Your task to perform on an android device: toggle priority inbox in the gmail app Image 0: 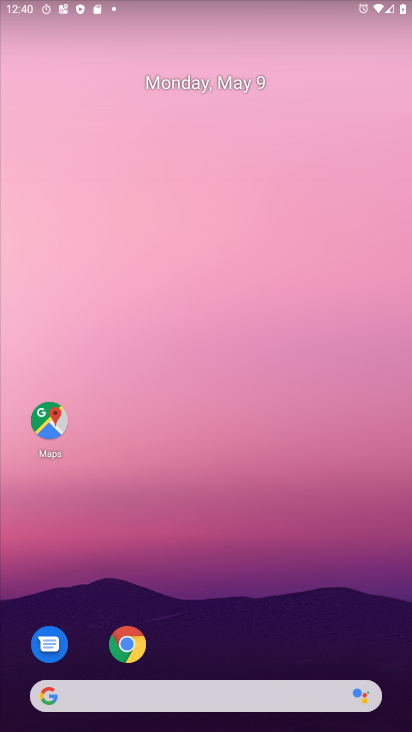
Step 0: press home button
Your task to perform on an android device: toggle priority inbox in the gmail app Image 1: 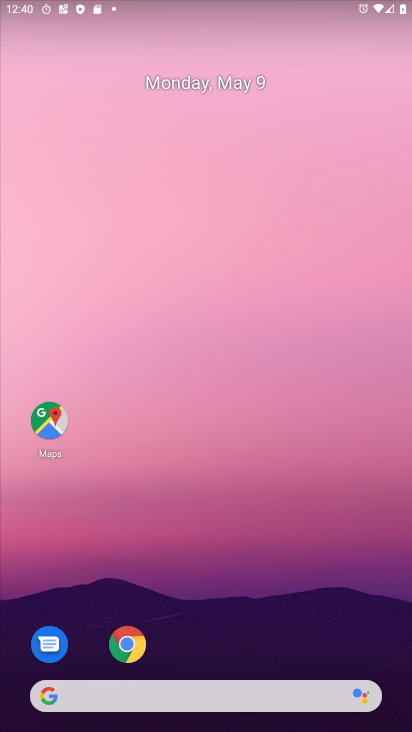
Step 1: click (104, 101)
Your task to perform on an android device: toggle priority inbox in the gmail app Image 2: 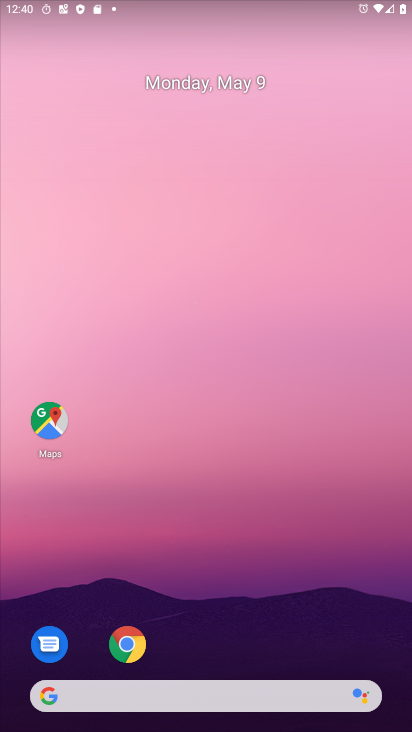
Step 2: click (158, 113)
Your task to perform on an android device: toggle priority inbox in the gmail app Image 3: 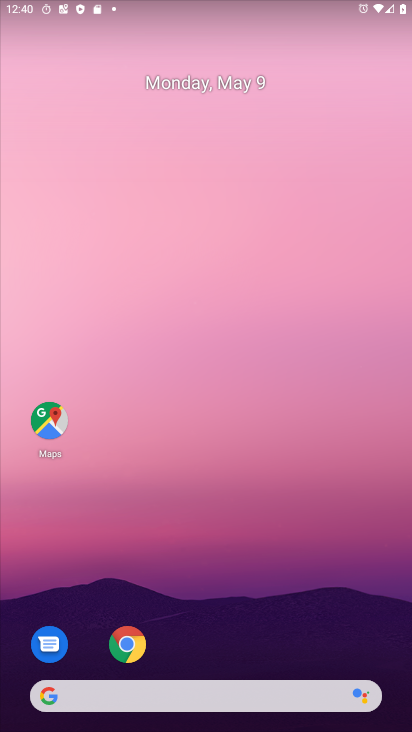
Step 3: drag from (257, 455) to (96, 33)
Your task to perform on an android device: toggle priority inbox in the gmail app Image 4: 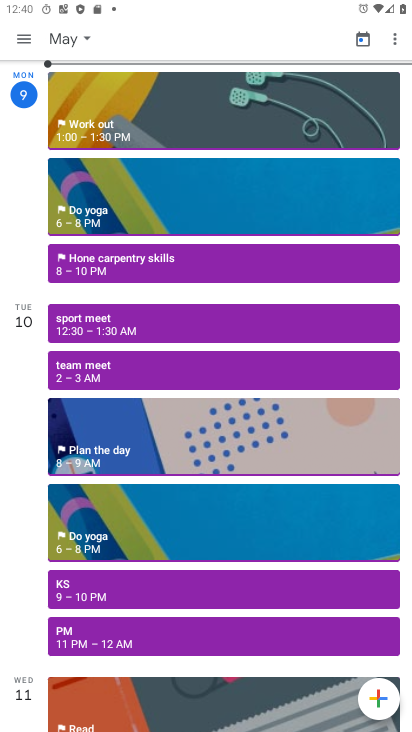
Step 4: drag from (238, 533) to (127, 96)
Your task to perform on an android device: toggle priority inbox in the gmail app Image 5: 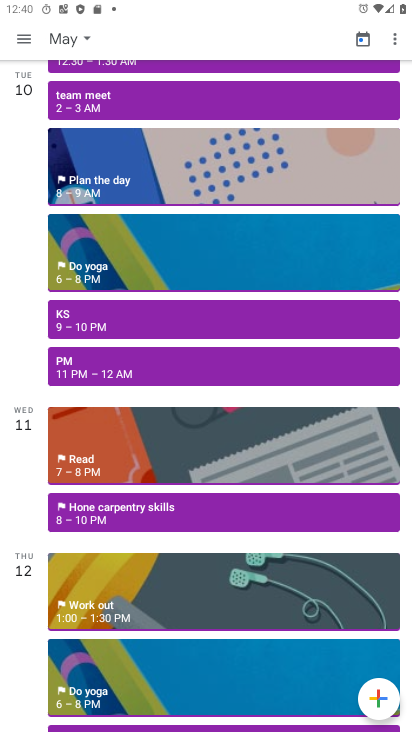
Step 5: press home button
Your task to perform on an android device: toggle priority inbox in the gmail app Image 6: 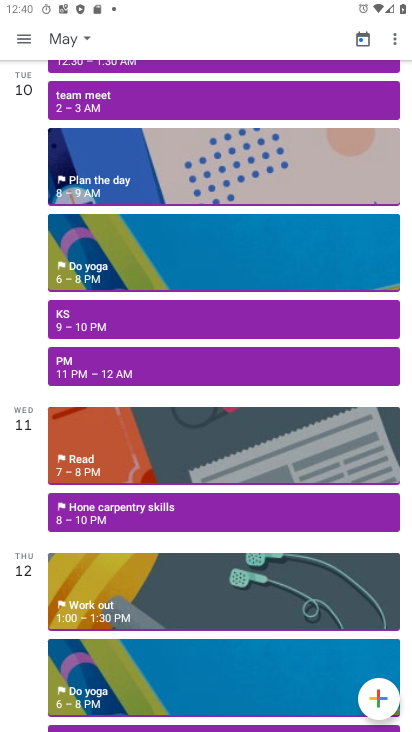
Step 6: press home button
Your task to perform on an android device: toggle priority inbox in the gmail app Image 7: 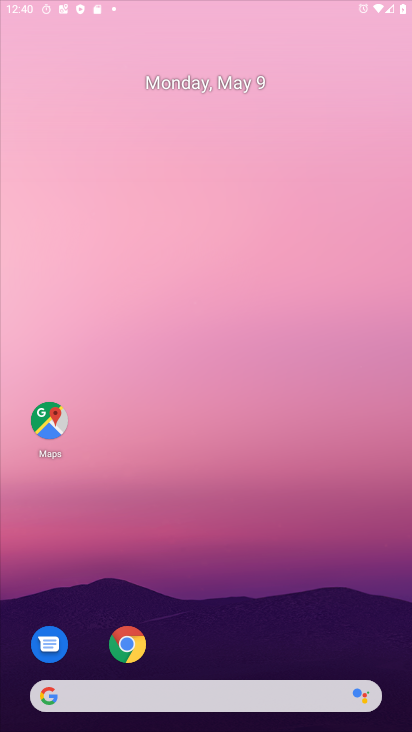
Step 7: press home button
Your task to perform on an android device: toggle priority inbox in the gmail app Image 8: 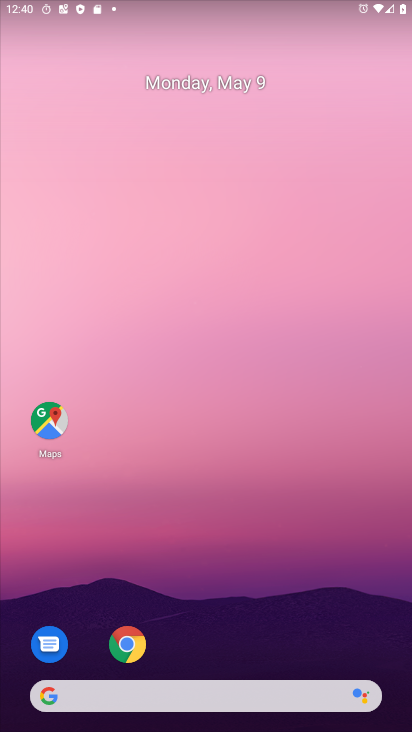
Step 8: drag from (301, 601) to (91, 73)
Your task to perform on an android device: toggle priority inbox in the gmail app Image 9: 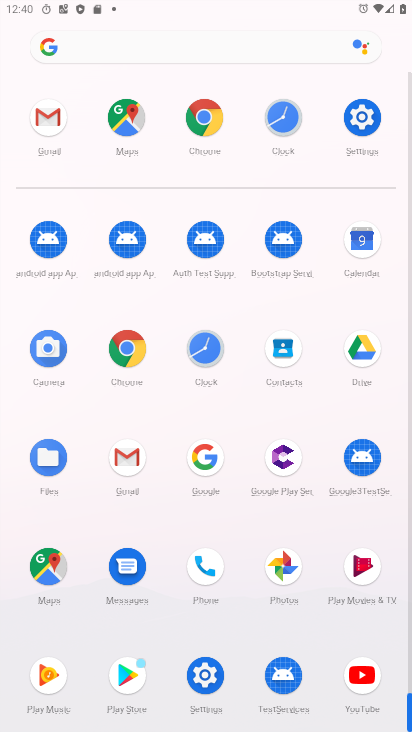
Step 9: drag from (224, 498) to (75, 15)
Your task to perform on an android device: toggle priority inbox in the gmail app Image 10: 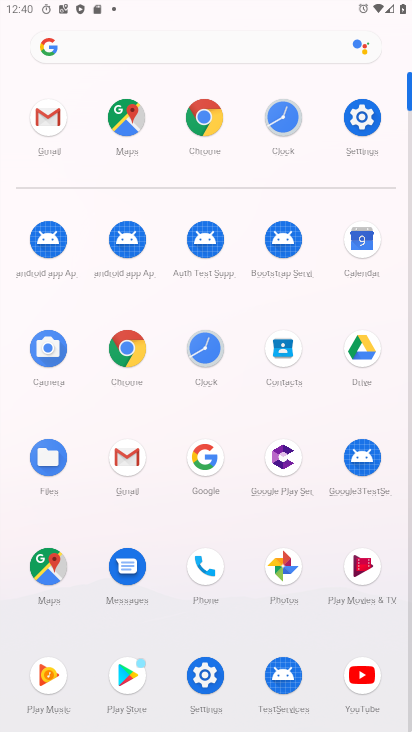
Step 10: click (123, 453)
Your task to perform on an android device: toggle priority inbox in the gmail app Image 11: 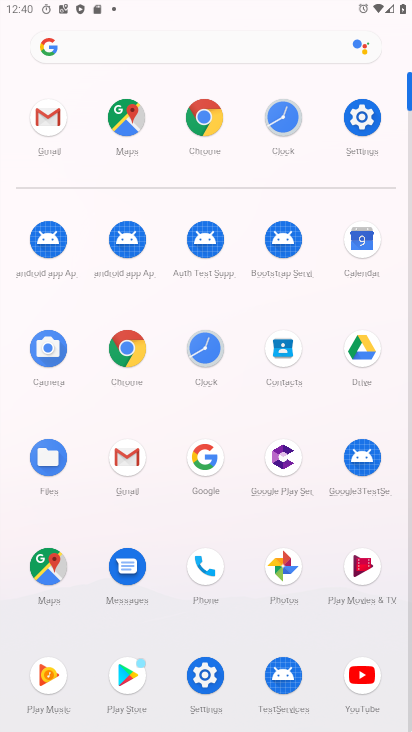
Step 11: click (123, 453)
Your task to perform on an android device: toggle priority inbox in the gmail app Image 12: 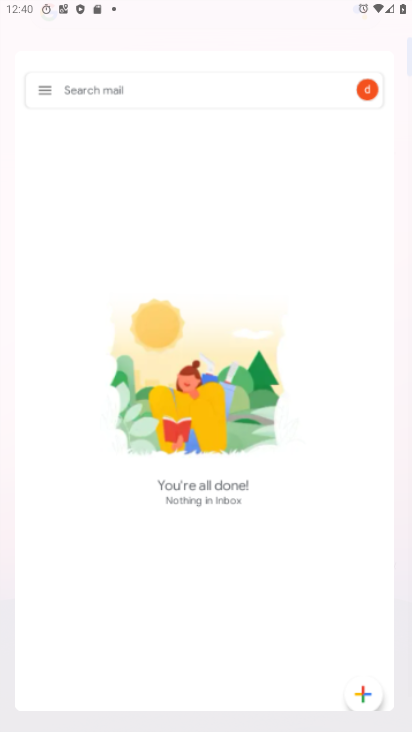
Step 12: click (122, 454)
Your task to perform on an android device: toggle priority inbox in the gmail app Image 13: 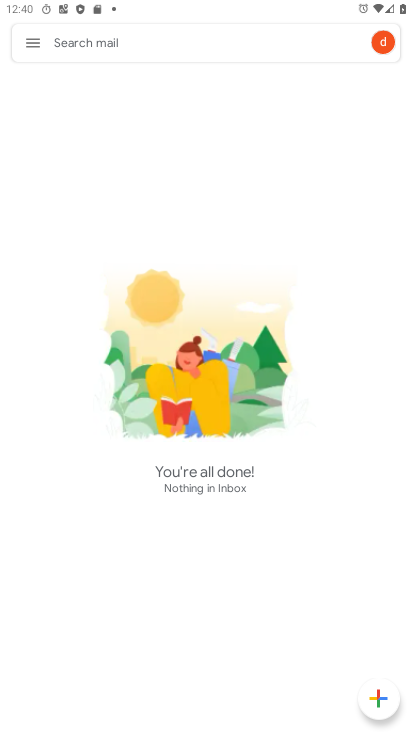
Step 13: click (32, 39)
Your task to perform on an android device: toggle priority inbox in the gmail app Image 14: 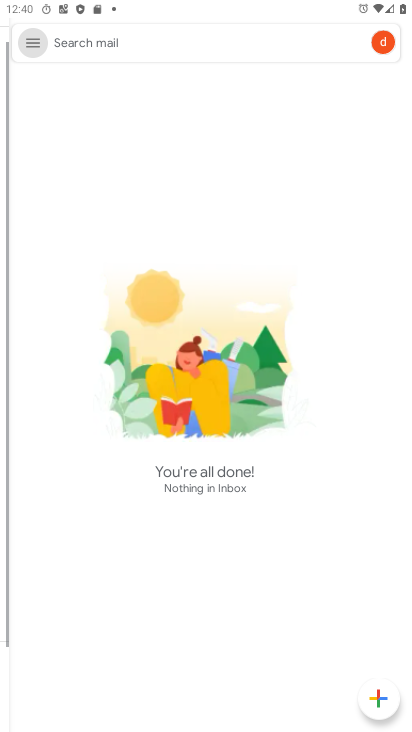
Step 14: click (32, 39)
Your task to perform on an android device: toggle priority inbox in the gmail app Image 15: 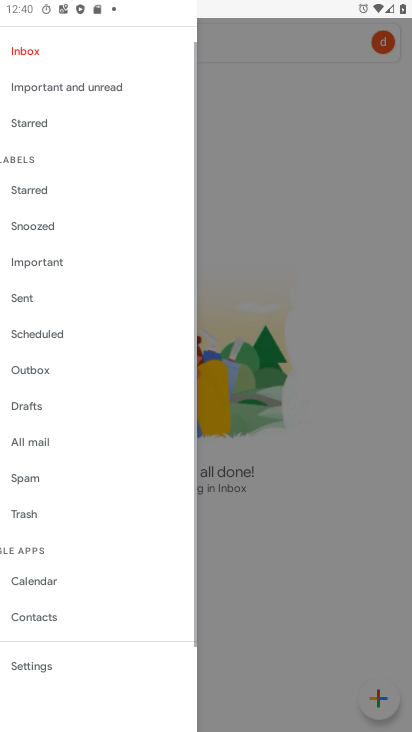
Step 15: click (32, 39)
Your task to perform on an android device: toggle priority inbox in the gmail app Image 16: 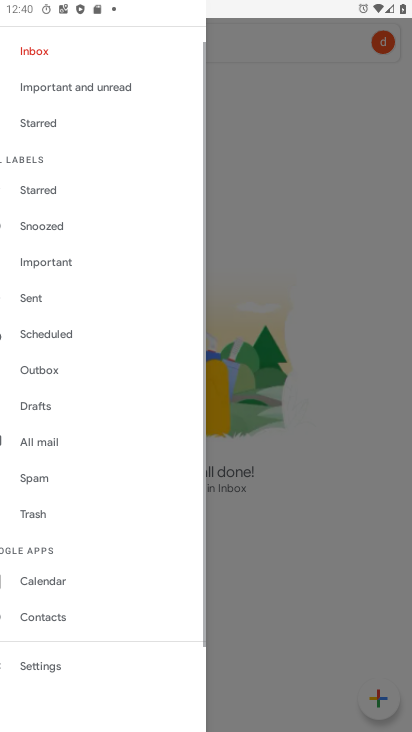
Step 16: click (32, 39)
Your task to perform on an android device: toggle priority inbox in the gmail app Image 17: 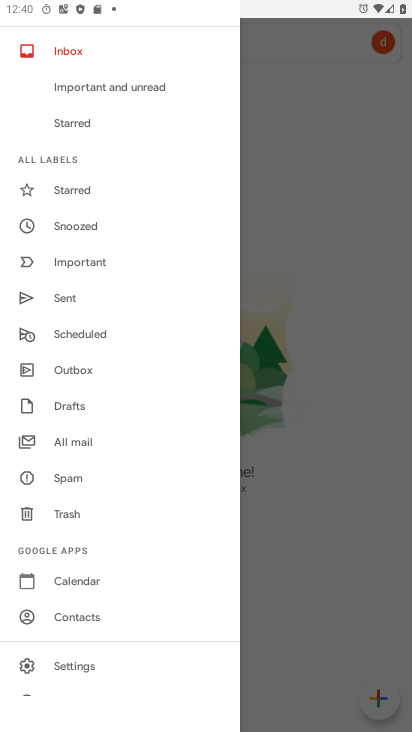
Step 17: click (61, 663)
Your task to perform on an android device: toggle priority inbox in the gmail app Image 18: 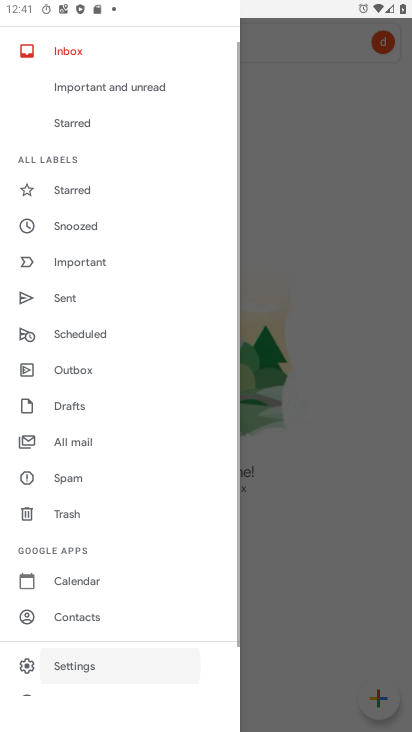
Step 18: click (61, 663)
Your task to perform on an android device: toggle priority inbox in the gmail app Image 19: 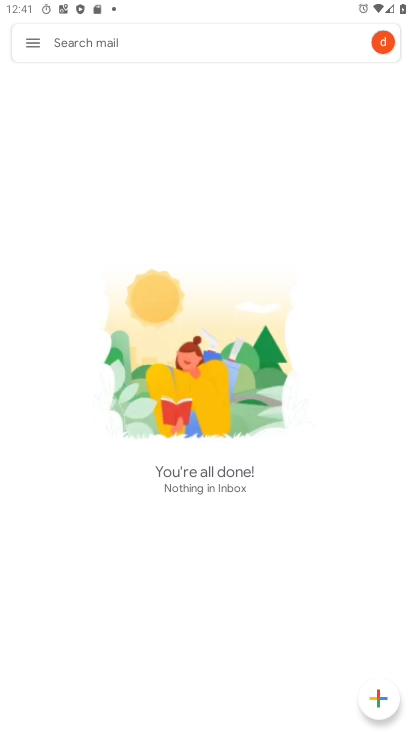
Step 19: click (61, 663)
Your task to perform on an android device: toggle priority inbox in the gmail app Image 20: 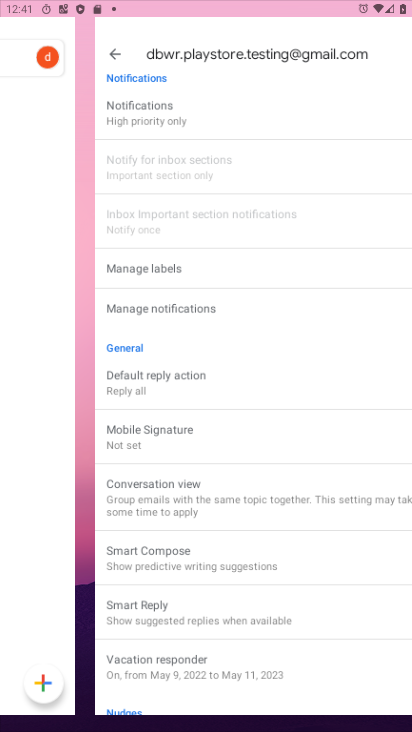
Step 20: click (63, 662)
Your task to perform on an android device: toggle priority inbox in the gmail app Image 21: 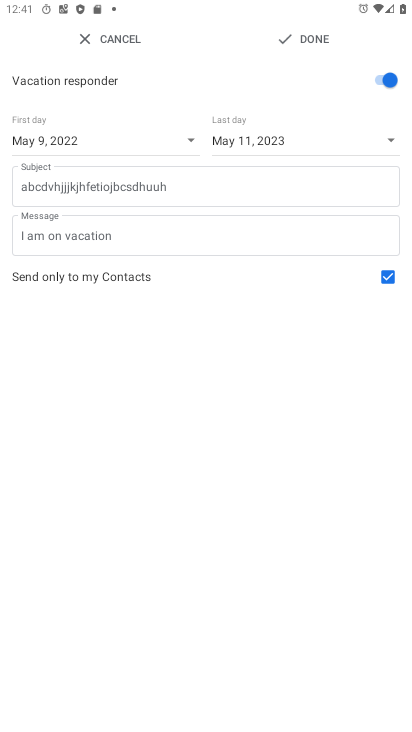
Step 21: press back button
Your task to perform on an android device: toggle priority inbox in the gmail app Image 22: 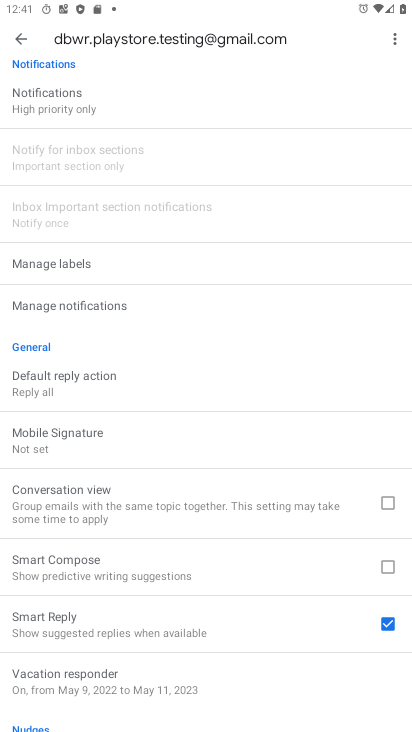
Step 22: drag from (97, 243) to (168, 554)
Your task to perform on an android device: toggle priority inbox in the gmail app Image 23: 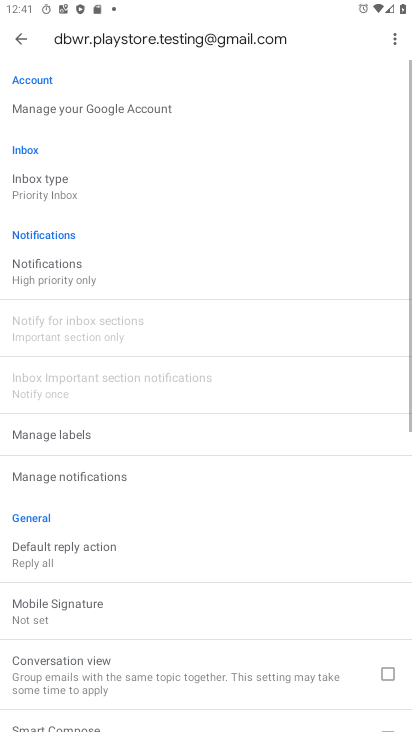
Step 23: drag from (87, 184) to (151, 422)
Your task to perform on an android device: toggle priority inbox in the gmail app Image 24: 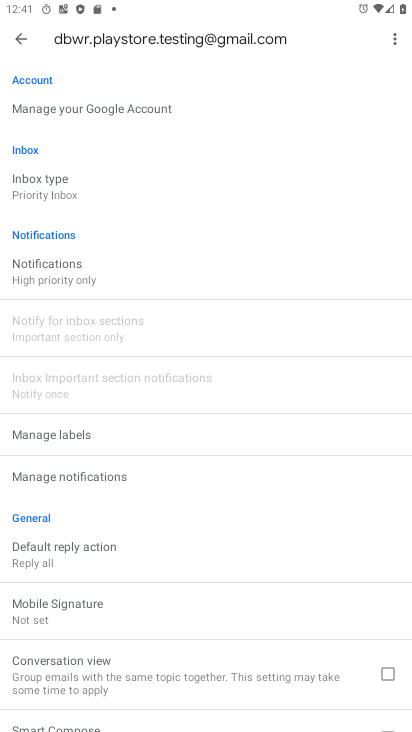
Step 24: drag from (54, 77) to (114, 439)
Your task to perform on an android device: toggle priority inbox in the gmail app Image 25: 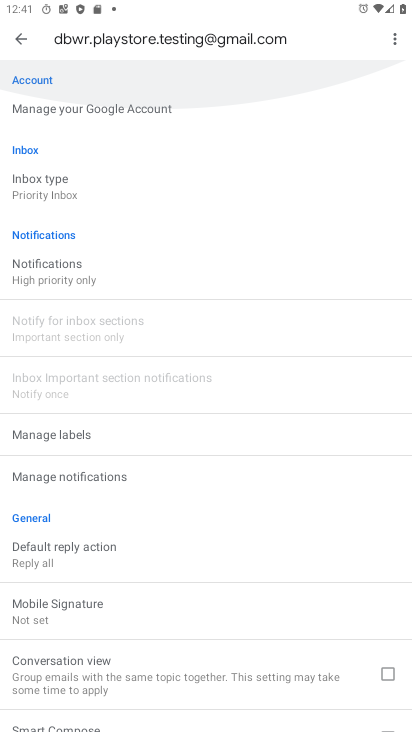
Step 25: drag from (0, 176) to (60, 514)
Your task to perform on an android device: toggle priority inbox in the gmail app Image 26: 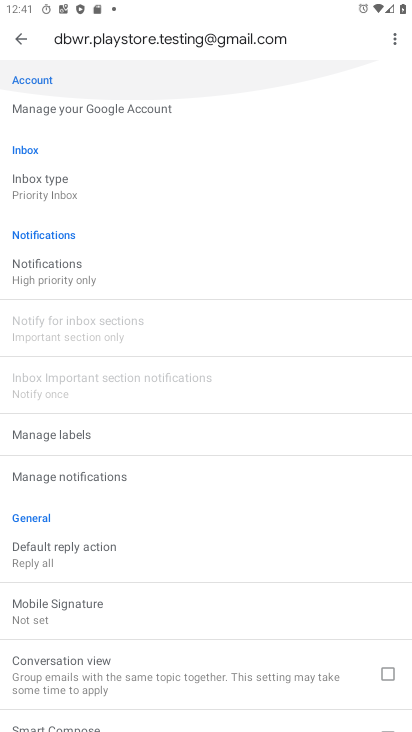
Step 26: drag from (89, 333) to (147, 630)
Your task to perform on an android device: toggle priority inbox in the gmail app Image 27: 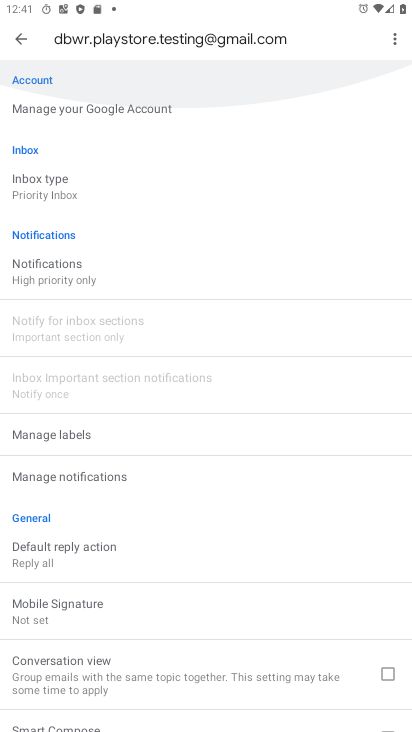
Step 27: drag from (61, 313) to (98, 594)
Your task to perform on an android device: toggle priority inbox in the gmail app Image 28: 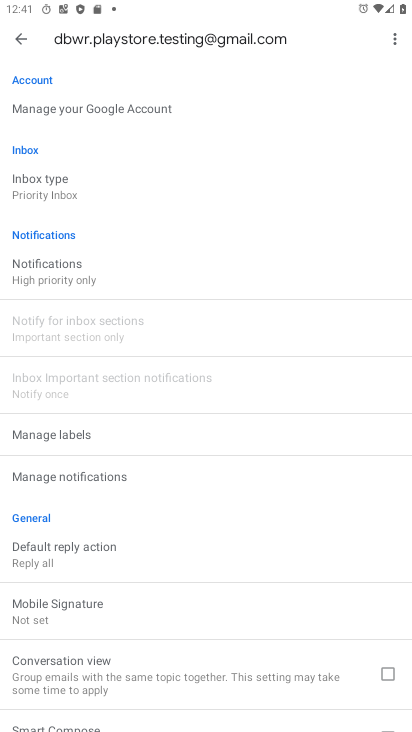
Step 28: click (16, 41)
Your task to perform on an android device: toggle priority inbox in the gmail app Image 29: 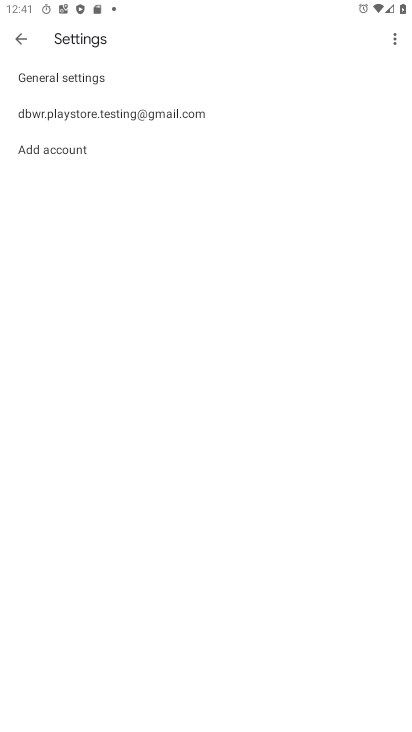
Step 29: click (74, 115)
Your task to perform on an android device: toggle priority inbox in the gmail app Image 30: 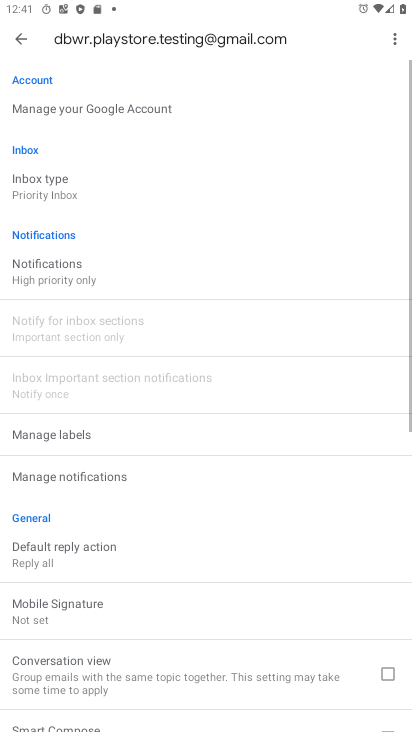
Step 30: click (33, 191)
Your task to perform on an android device: toggle priority inbox in the gmail app Image 31: 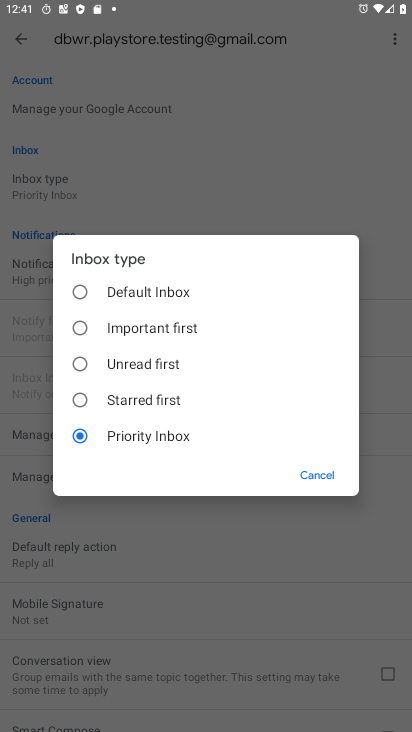
Step 31: click (343, 478)
Your task to perform on an android device: toggle priority inbox in the gmail app Image 32: 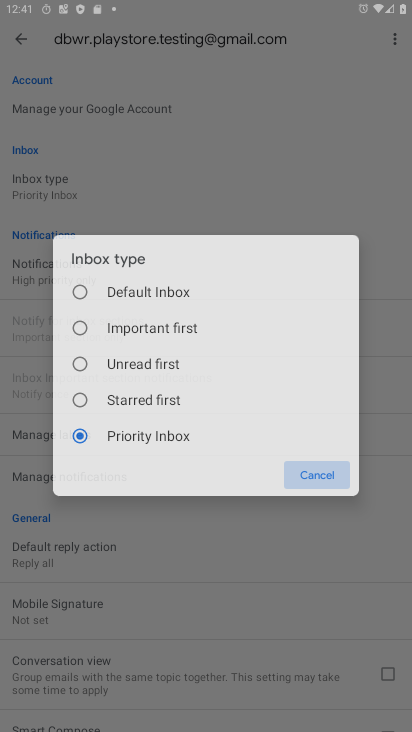
Step 32: click (322, 478)
Your task to perform on an android device: toggle priority inbox in the gmail app Image 33: 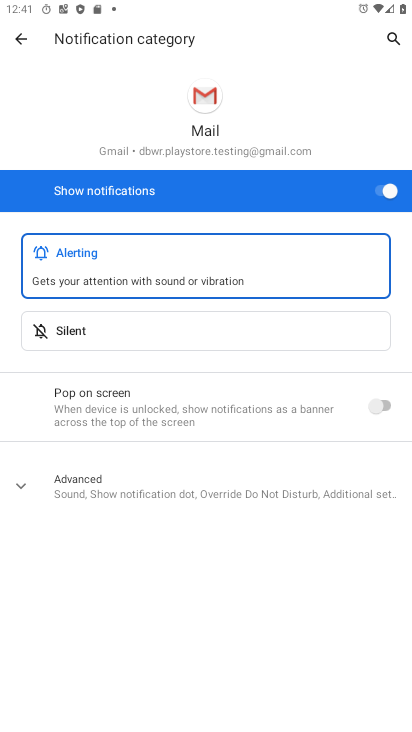
Step 33: task complete